Your task to perform on an android device: Go to privacy settings Image 0: 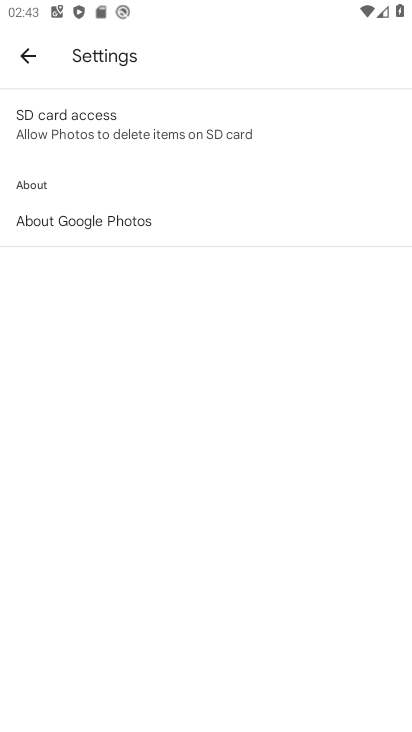
Step 0: press home button
Your task to perform on an android device: Go to privacy settings Image 1: 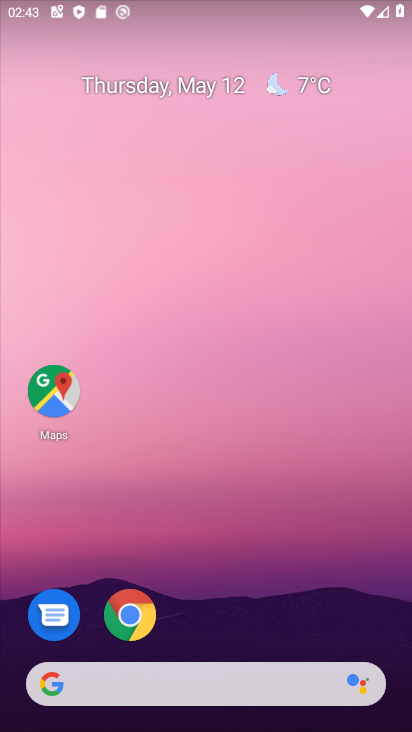
Step 1: drag from (189, 665) to (195, 76)
Your task to perform on an android device: Go to privacy settings Image 2: 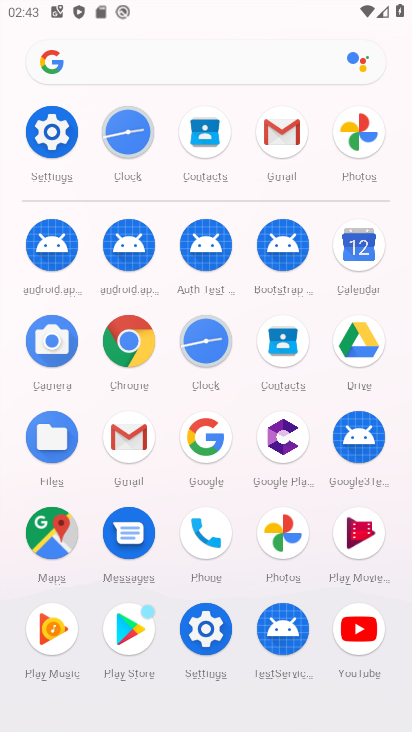
Step 2: click (58, 134)
Your task to perform on an android device: Go to privacy settings Image 3: 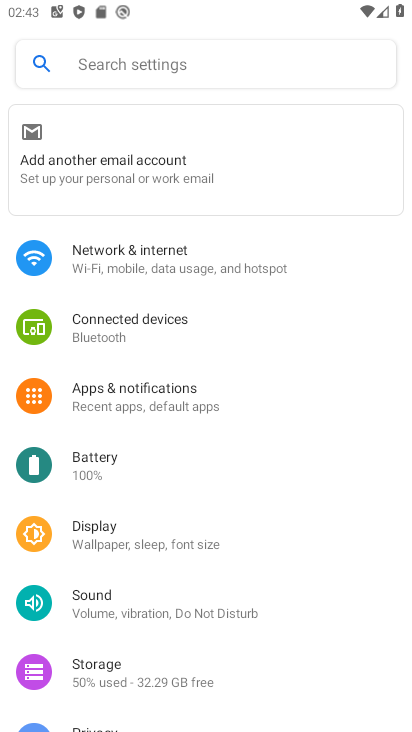
Step 3: drag from (133, 586) to (165, 229)
Your task to perform on an android device: Go to privacy settings Image 4: 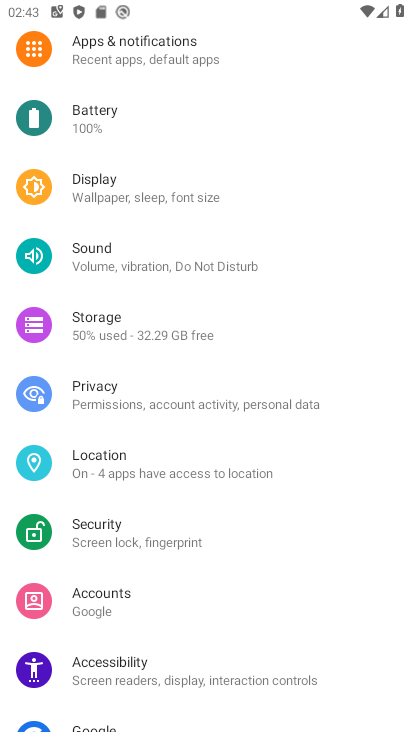
Step 4: click (124, 380)
Your task to perform on an android device: Go to privacy settings Image 5: 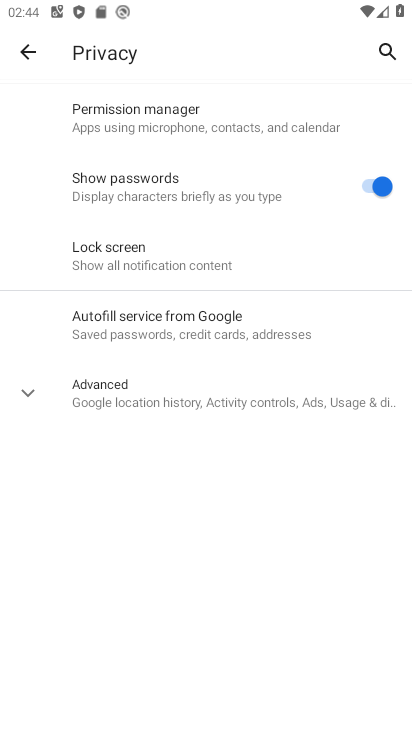
Step 5: click (126, 394)
Your task to perform on an android device: Go to privacy settings Image 6: 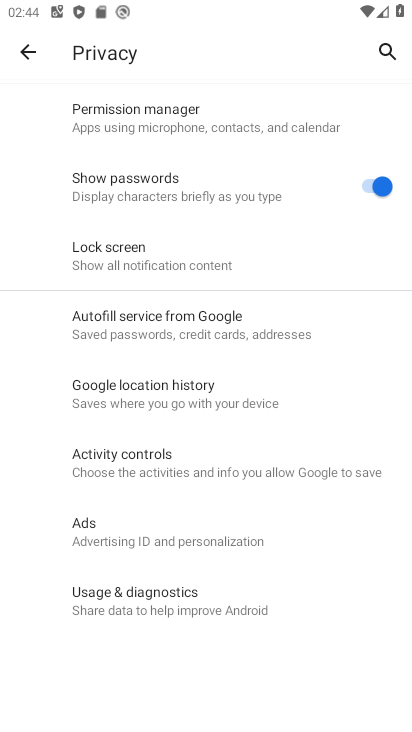
Step 6: task complete